Your task to perform on an android device: open app "Venmo" Image 0: 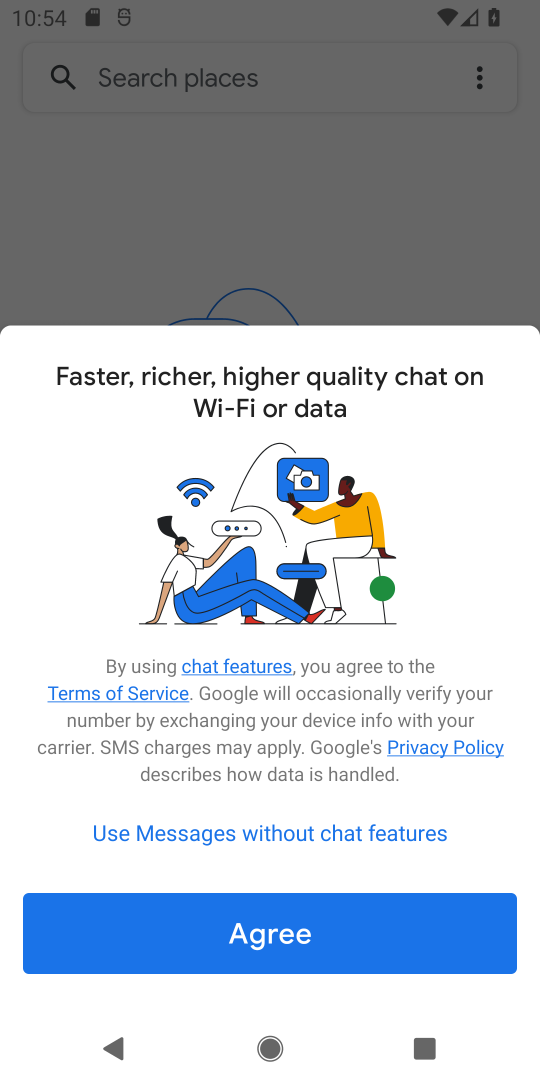
Step 0: press back button
Your task to perform on an android device: open app "Venmo" Image 1: 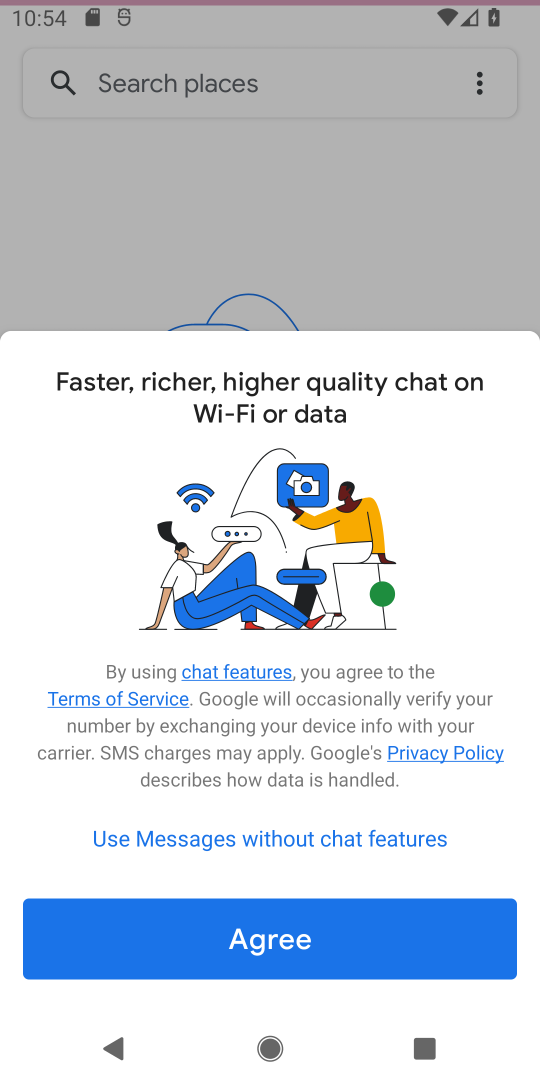
Step 1: press home button
Your task to perform on an android device: open app "Venmo" Image 2: 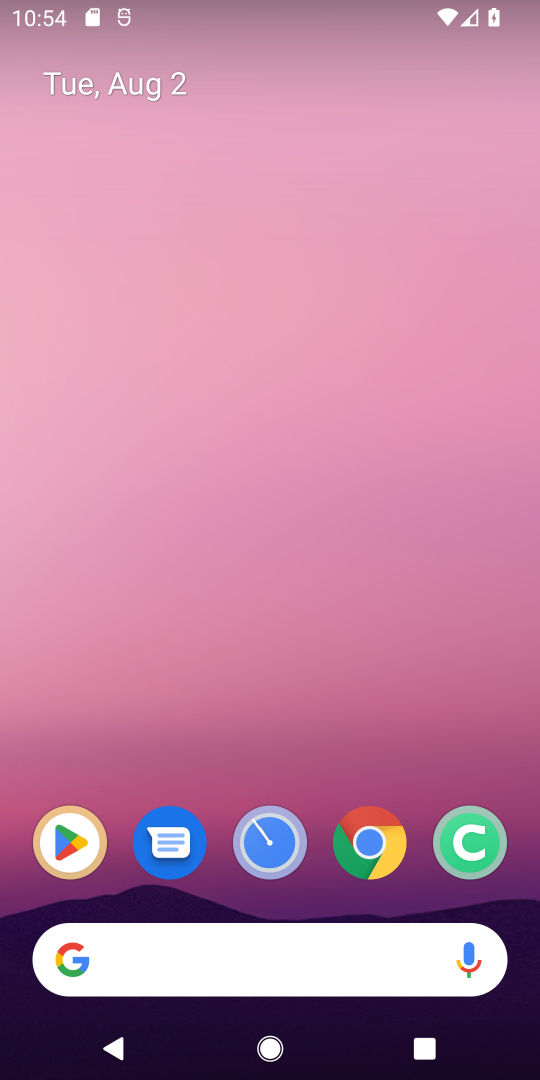
Step 2: drag from (389, 701) to (240, 45)
Your task to perform on an android device: open app "Venmo" Image 3: 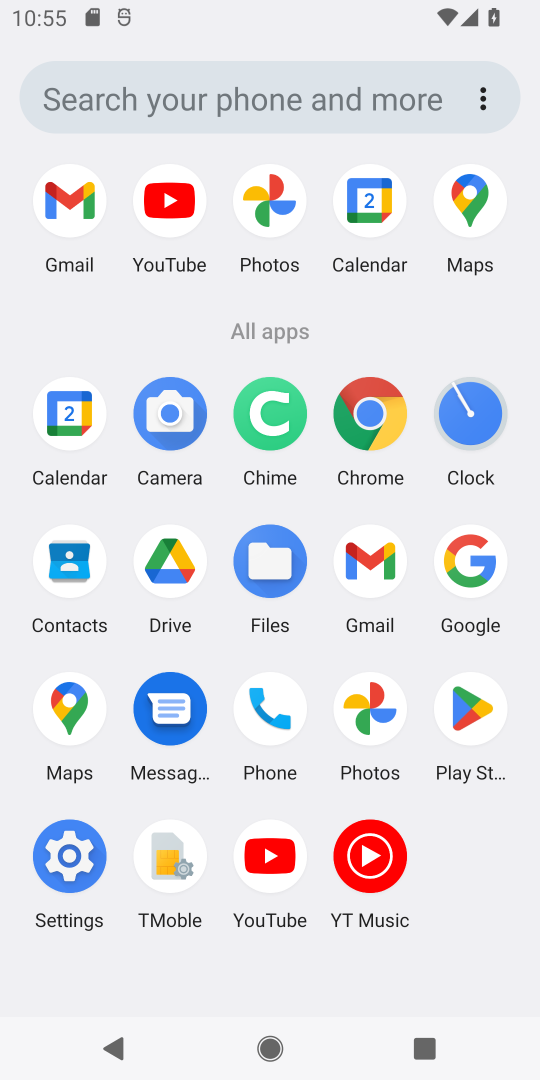
Step 3: click (494, 735)
Your task to perform on an android device: open app "Venmo" Image 4: 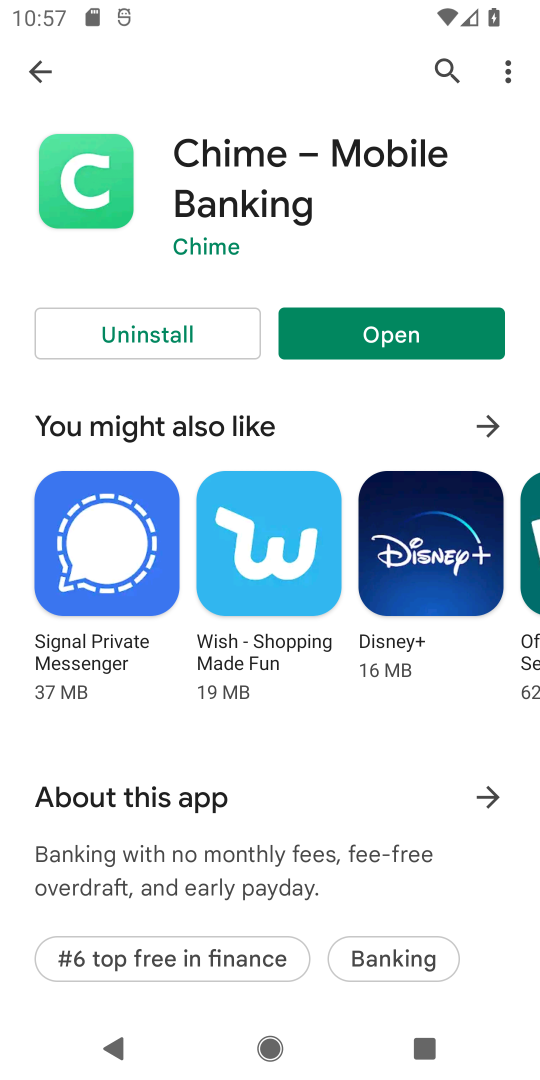
Step 4: click (399, 348)
Your task to perform on an android device: open app "Venmo" Image 5: 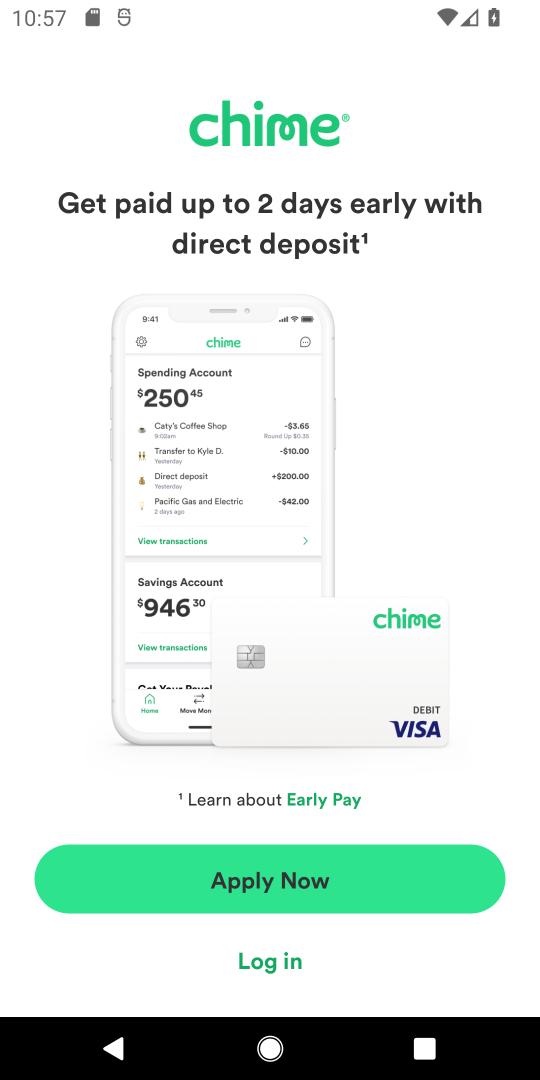
Step 5: task complete